Your task to perform on an android device: Open Chrome and go to the settings page Image 0: 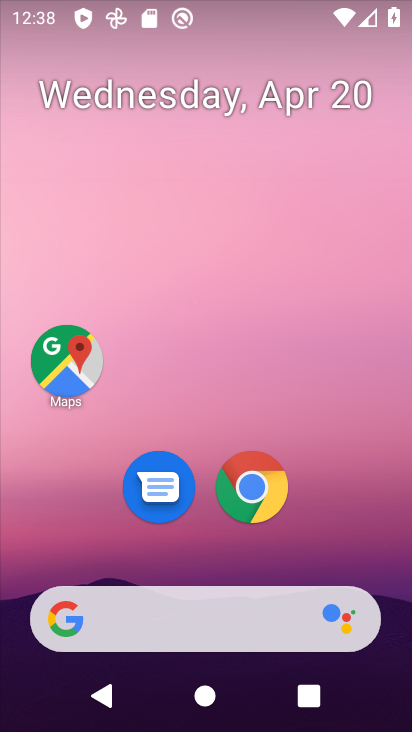
Step 0: drag from (367, 543) to (270, 86)
Your task to perform on an android device: Open Chrome and go to the settings page Image 1: 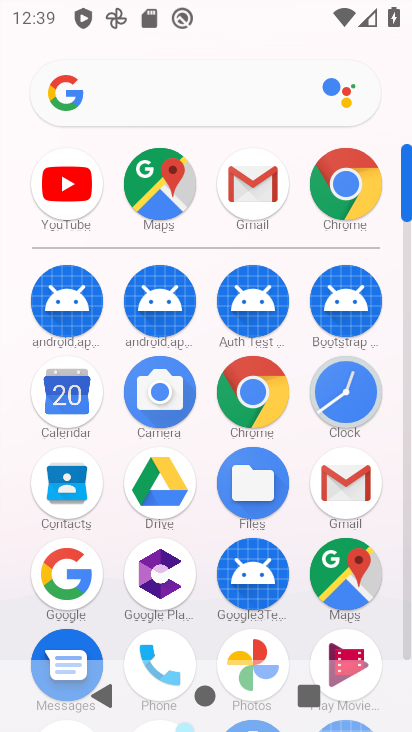
Step 1: click (351, 204)
Your task to perform on an android device: Open Chrome and go to the settings page Image 2: 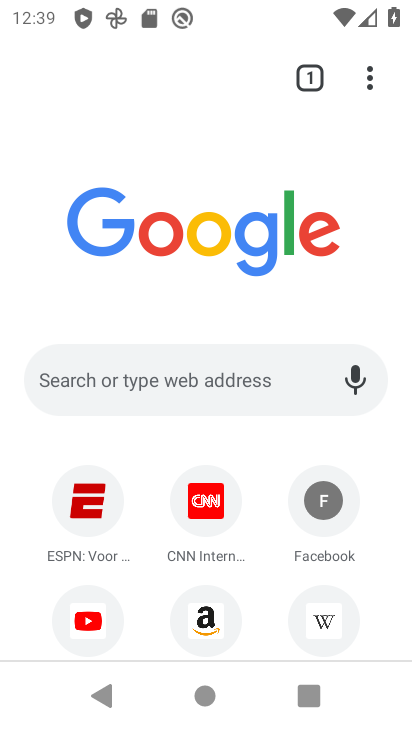
Step 2: click (373, 83)
Your task to perform on an android device: Open Chrome and go to the settings page Image 3: 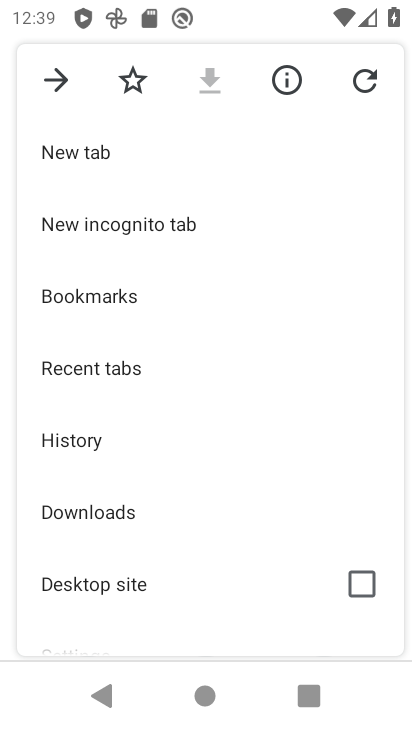
Step 3: drag from (142, 556) to (210, 158)
Your task to perform on an android device: Open Chrome and go to the settings page Image 4: 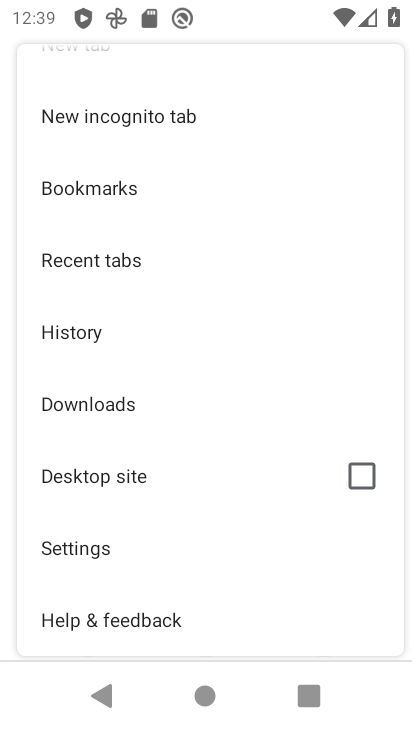
Step 4: click (133, 553)
Your task to perform on an android device: Open Chrome and go to the settings page Image 5: 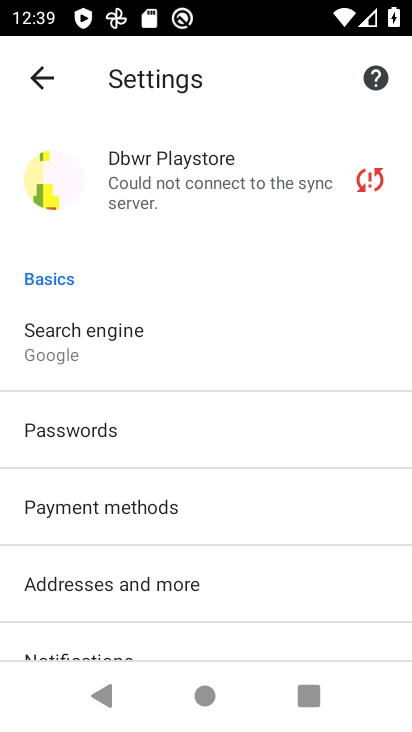
Step 5: task complete